Your task to perform on an android device: See recent photos Image 0: 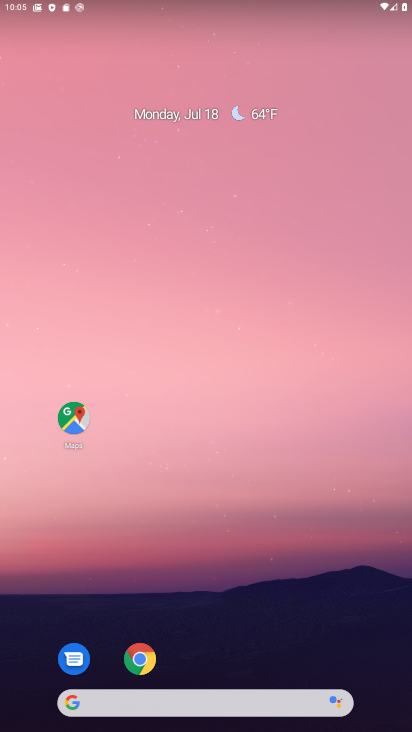
Step 0: drag from (242, 673) to (221, 88)
Your task to perform on an android device: See recent photos Image 1: 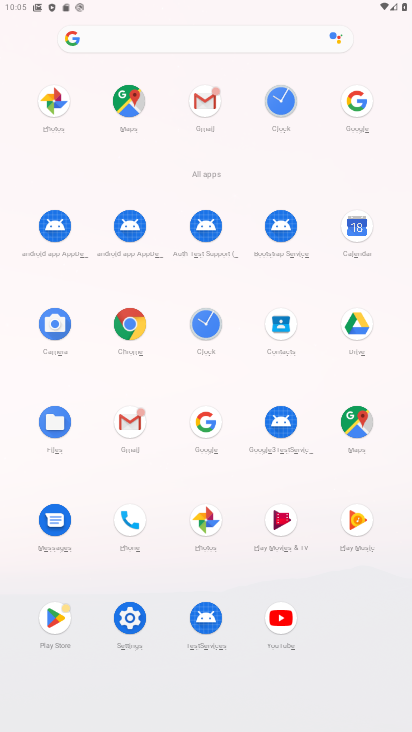
Step 1: click (201, 521)
Your task to perform on an android device: See recent photos Image 2: 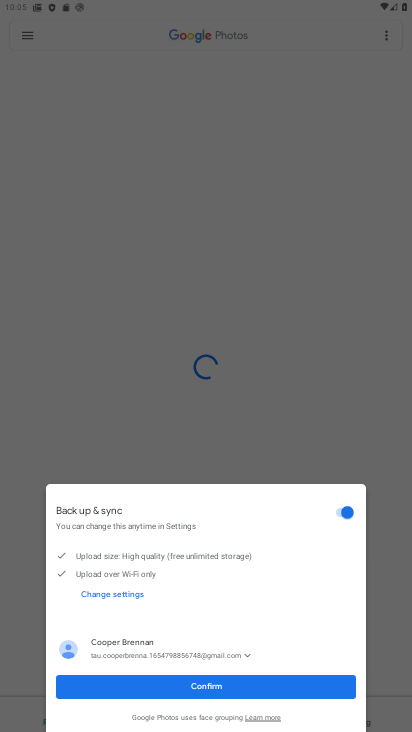
Step 2: click (201, 692)
Your task to perform on an android device: See recent photos Image 3: 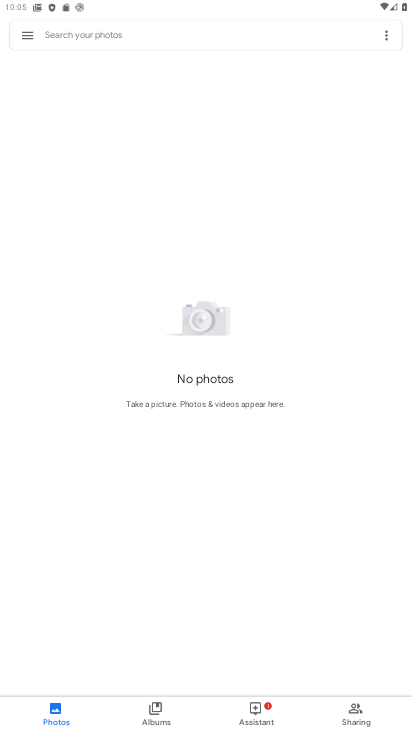
Step 3: task complete